Your task to perform on an android device: open app "DoorDash - Food Delivery" Image 0: 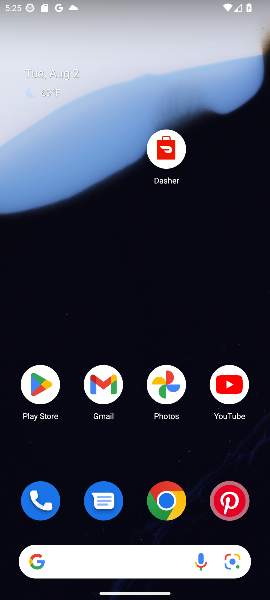
Step 0: click (41, 392)
Your task to perform on an android device: open app "DoorDash - Food Delivery" Image 1: 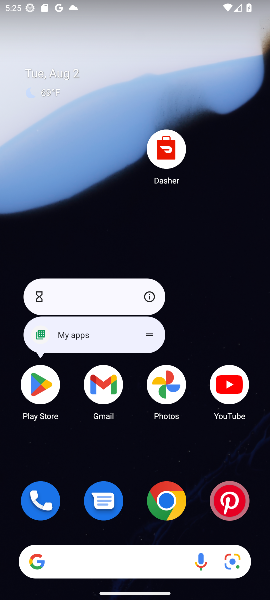
Step 1: click (41, 392)
Your task to perform on an android device: open app "DoorDash - Food Delivery" Image 2: 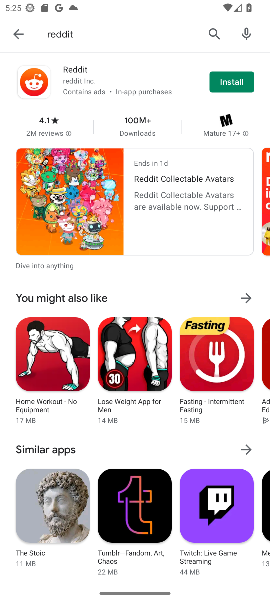
Step 2: click (213, 32)
Your task to perform on an android device: open app "DoorDash - Food Delivery" Image 3: 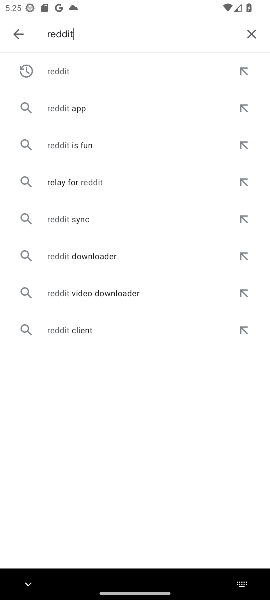
Step 3: click (248, 38)
Your task to perform on an android device: open app "DoorDash - Food Delivery" Image 4: 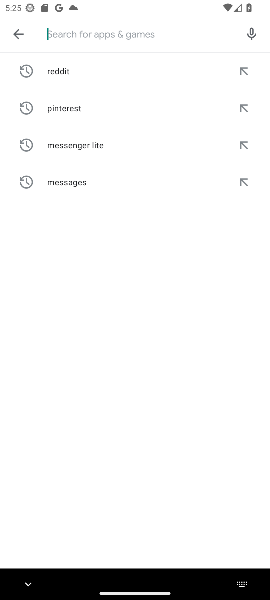
Step 4: type "DoorDash - Food Delivery"
Your task to perform on an android device: open app "DoorDash - Food Delivery" Image 5: 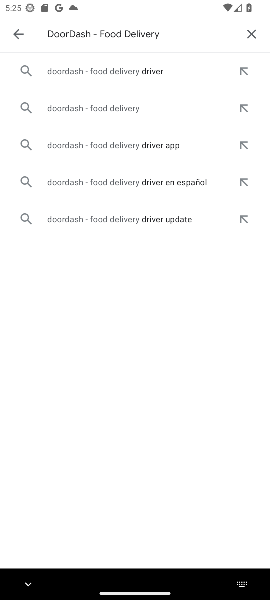
Step 5: click (79, 74)
Your task to perform on an android device: open app "DoorDash - Food Delivery" Image 6: 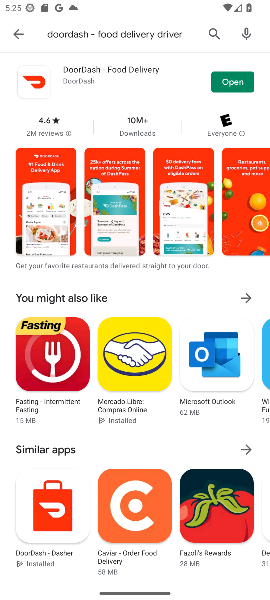
Step 6: click (223, 85)
Your task to perform on an android device: open app "DoorDash - Food Delivery" Image 7: 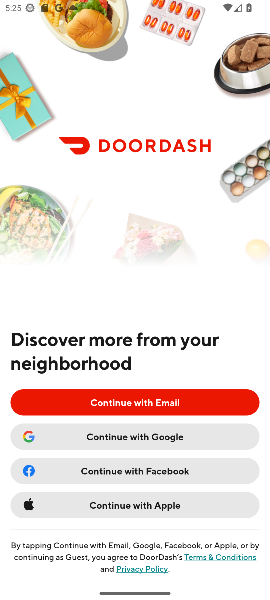
Step 7: task complete